Your task to perform on an android device: change keyboard looks Image 0: 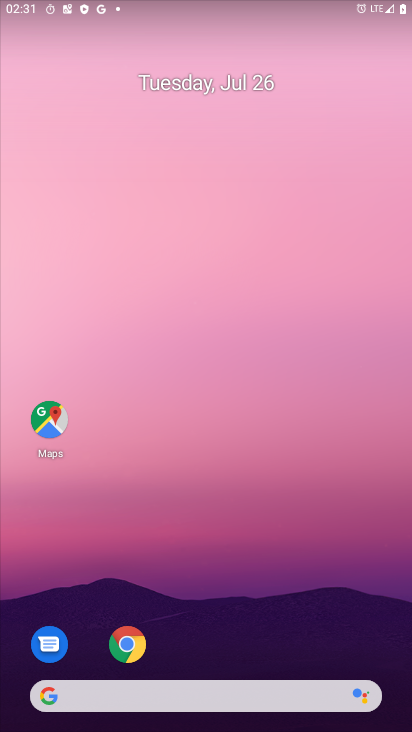
Step 0: drag from (268, 176) to (264, 0)
Your task to perform on an android device: change keyboard looks Image 1: 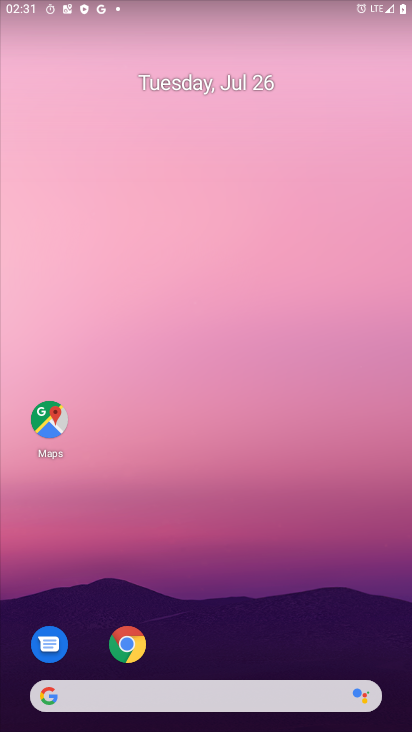
Step 1: drag from (207, 653) to (217, 0)
Your task to perform on an android device: change keyboard looks Image 2: 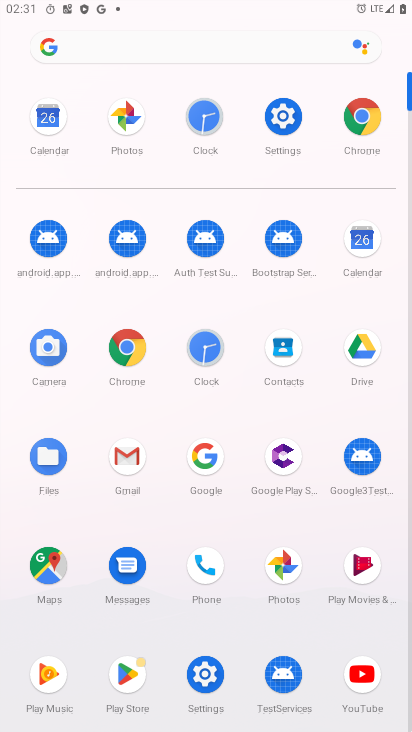
Step 2: click (279, 118)
Your task to perform on an android device: change keyboard looks Image 3: 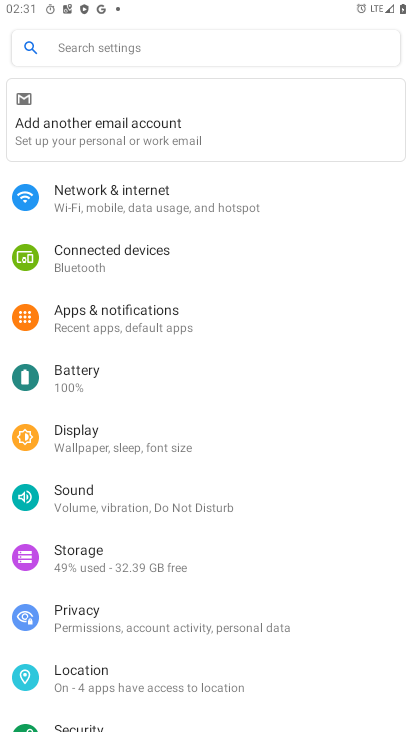
Step 3: drag from (347, 624) to (340, 274)
Your task to perform on an android device: change keyboard looks Image 4: 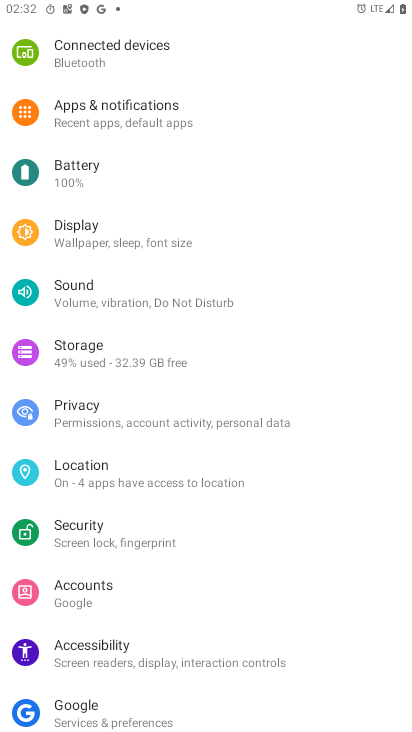
Step 4: drag from (351, 630) to (350, 266)
Your task to perform on an android device: change keyboard looks Image 5: 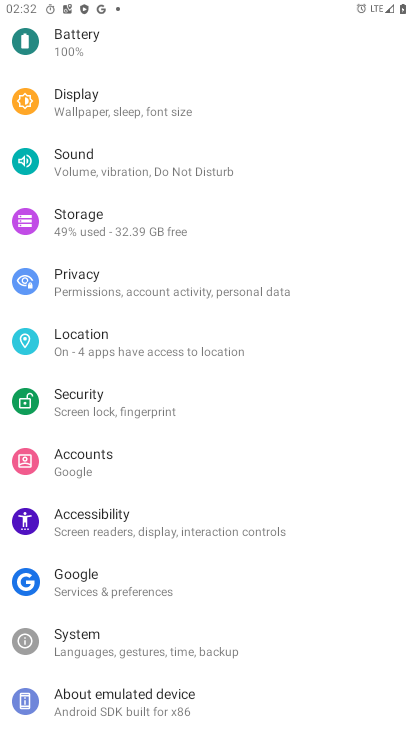
Step 5: click (89, 652)
Your task to perform on an android device: change keyboard looks Image 6: 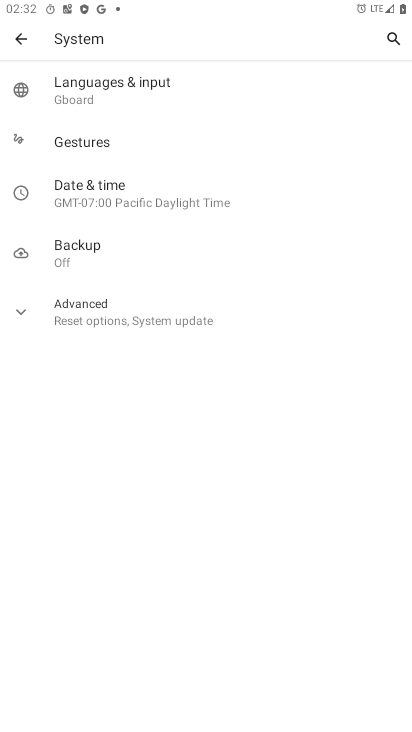
Step 6: click (65, 80)
Your task to perform on an android device: change keyboard looks Image 7: 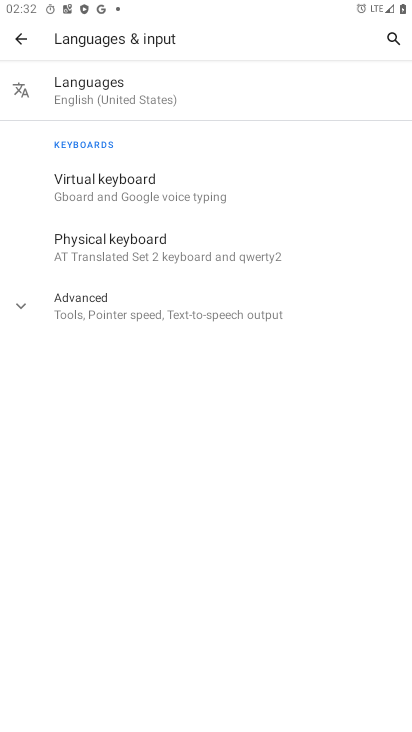
Step 7: click (66, 188)
Your task to perform on an android device: change keyboard looks Image 8: 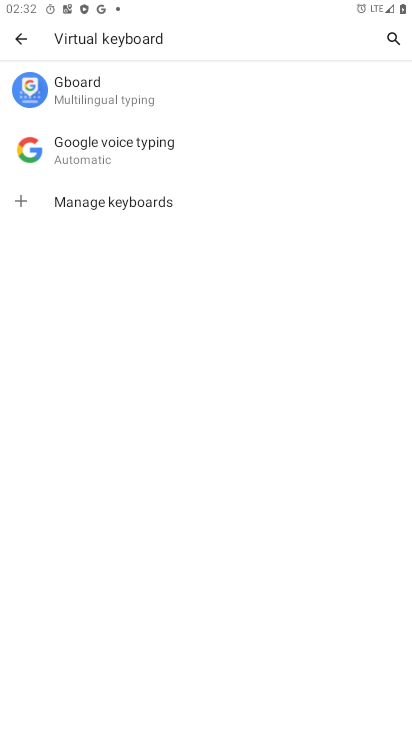
Step 8: click (86, 89)
Your task to perform on an android device: change keyboard looks Image 9: 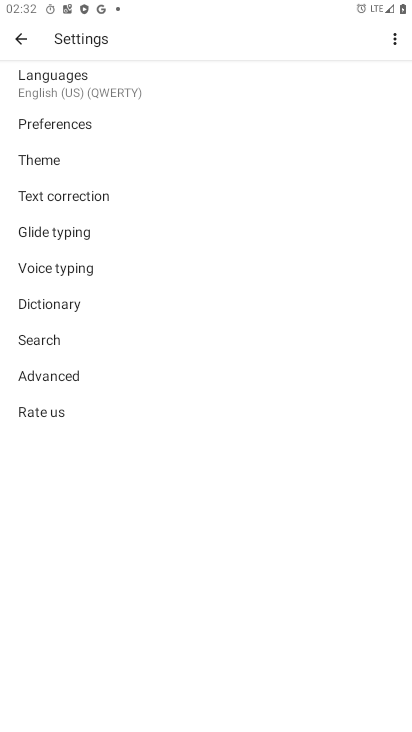
Step 9: click (57, 170)
Your task to perform on an android device: change keyboard looks Image 10: 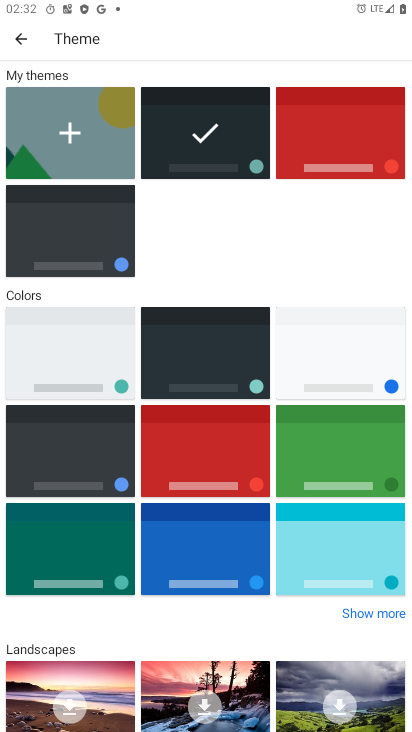
Step 10: click (217, 561)
Your task to perform on an android device: change keyboard looks Image 11: 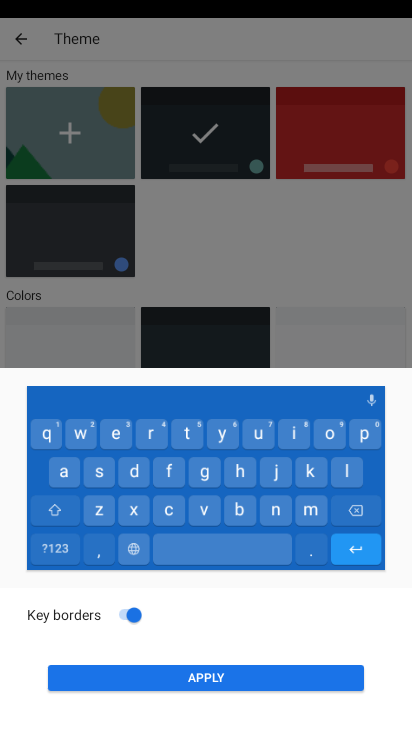
Step 11: click (135, 669)
Your task to perform on an android device: change keyboard looks Image 12: 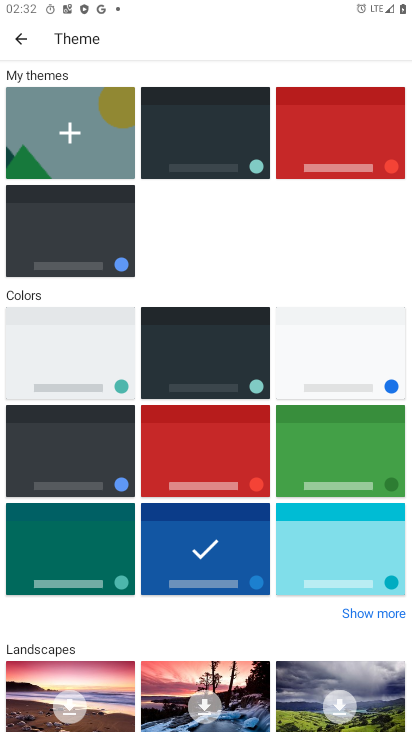
Step 12: task complete